Your task to perform on an android device: What is the recent news? Image 0: 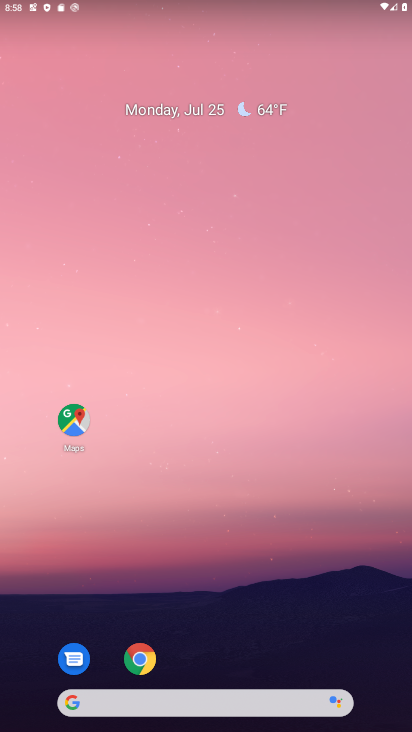
Step 0: press home button
Your task to perform on an android device: What is the recent news? Image 1: 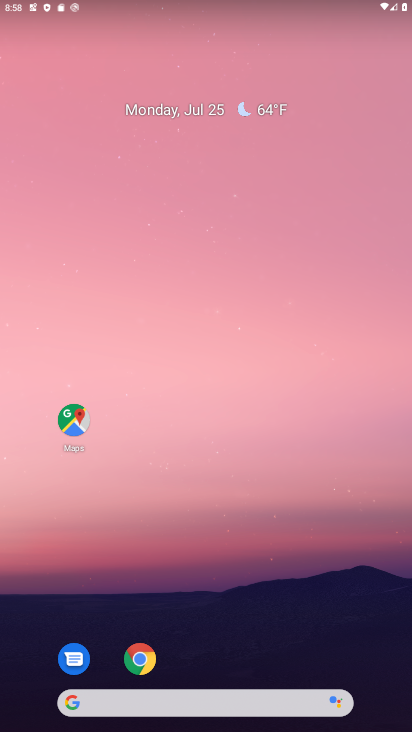
Step 1: task complete